Your task to perform on an android device: delete browsing data in the chrome app Image 0: 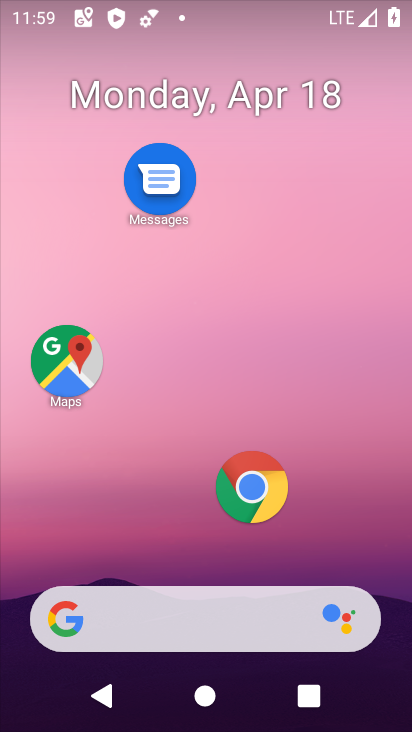
Step 0: click (239, 490)
Your task to perform on an android device: delete browsing data in the chrome app Image 1: 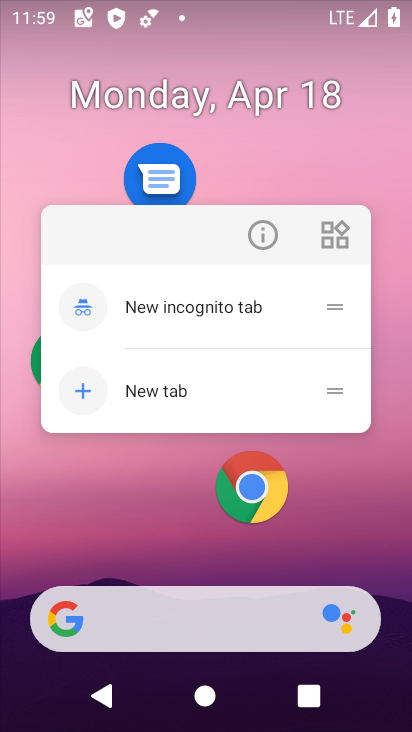
Step 1: click (248, 500)
Your task to perform on an android device: delete browsing data in the chrome app Image 2: 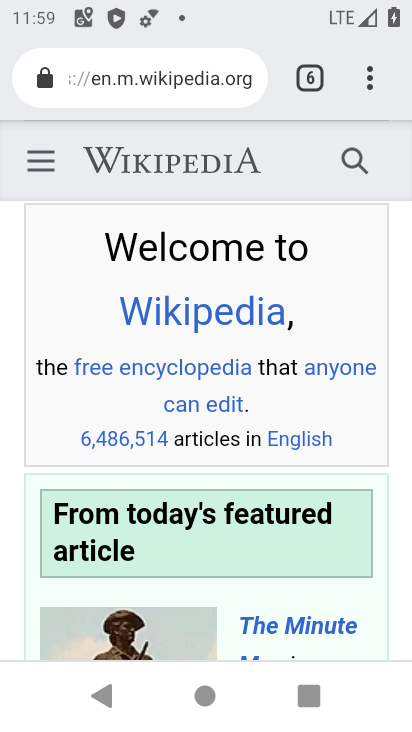
Step 2: click (367, 75)
Your task to perform on an android device: delete browsing data in the chrome app Image 3: 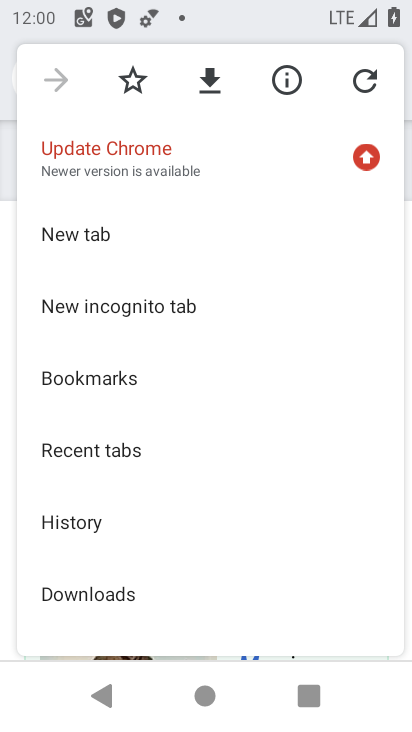
Step 3: click (81, 523)
Your task to perform on an android device: delete browsing data in the chrome app Image 4: 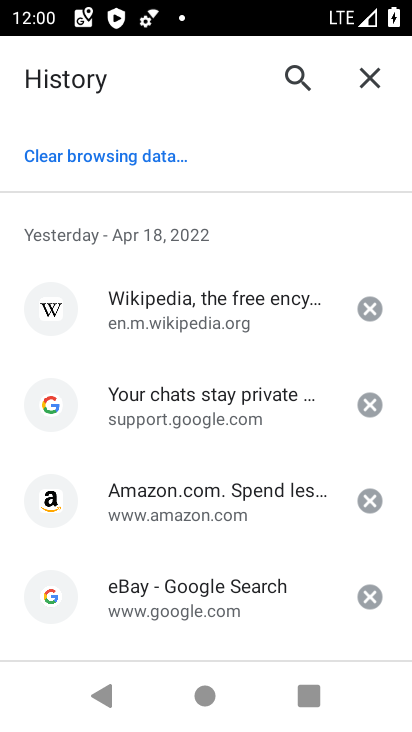
Step 4: click (131, 163)
Your task to perform on an android device: delete browsing data in the chrome app Image 5: 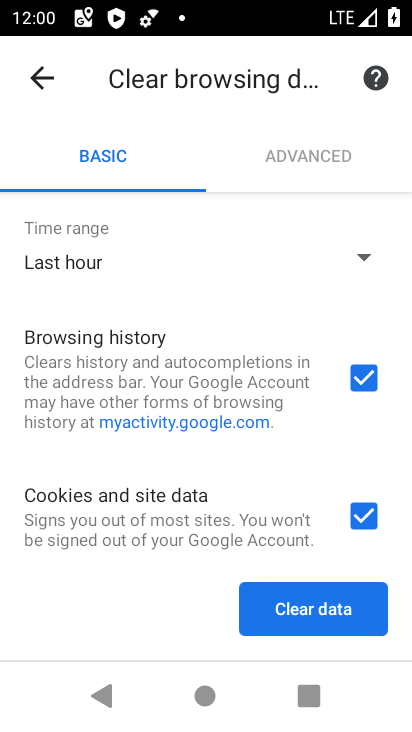
Step 5: click (370, 517)
Your task to perform on an android device: delete browsing data in the chrome app Image 6: 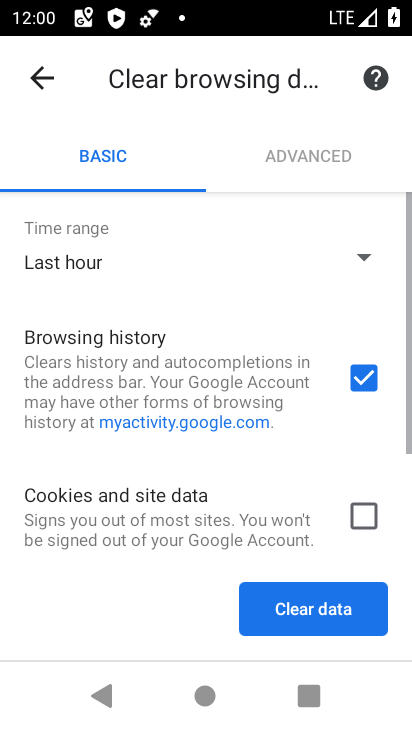
Step 6: click (335, 603)
Your task to perform on an android device: delete browsing data in the chrome app Image 7: 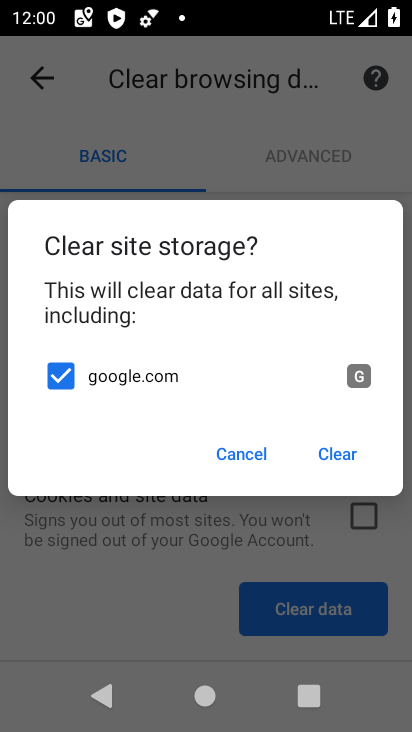
Step 7: click (331, 465)
Your task to perform on an android device: delete browsing data in the chrome app Image 8: 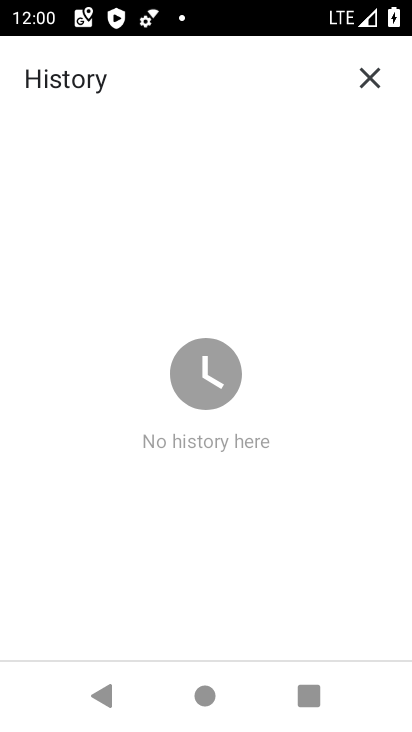
Step 8: task complete